Your task to perform on an android device: turn notification dots off Image 0: 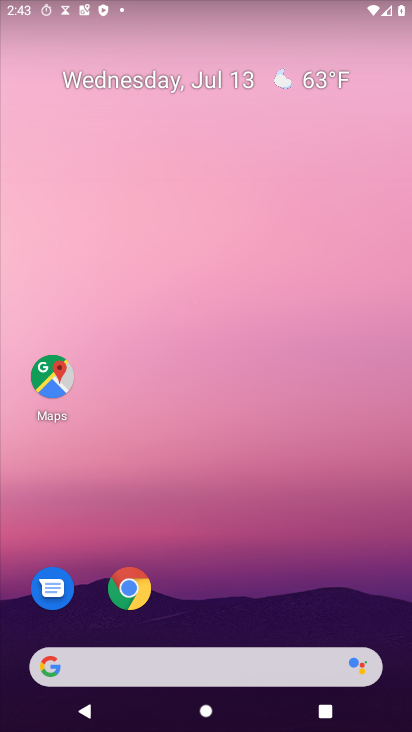
Step 0: drag from (229, 670) to (213, 298)
Your task to perform on an android device: turn notification dots off Image 1: 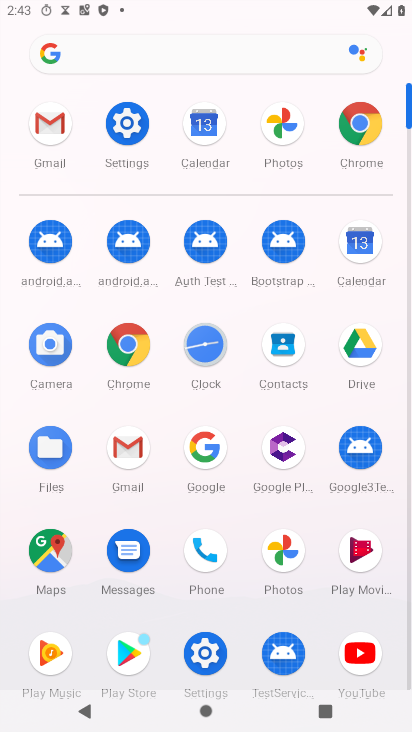
Step 1: click (127, 118)
Your task to perform on an android device: turn notification dots off Image 2: 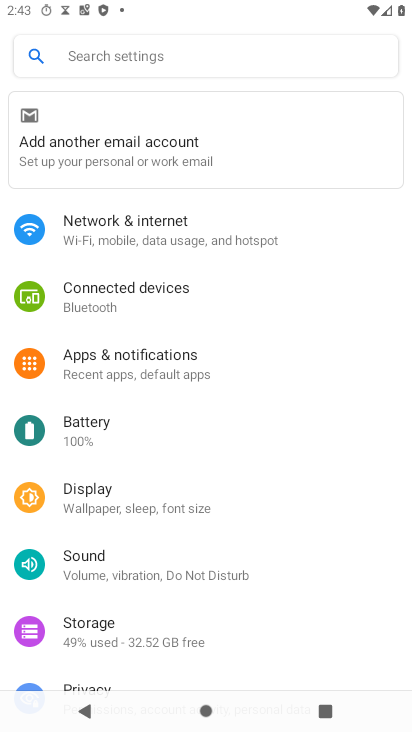
Step 2: click (142, 352)
Your task to perform on an android device: turn notification dots off Image 3: 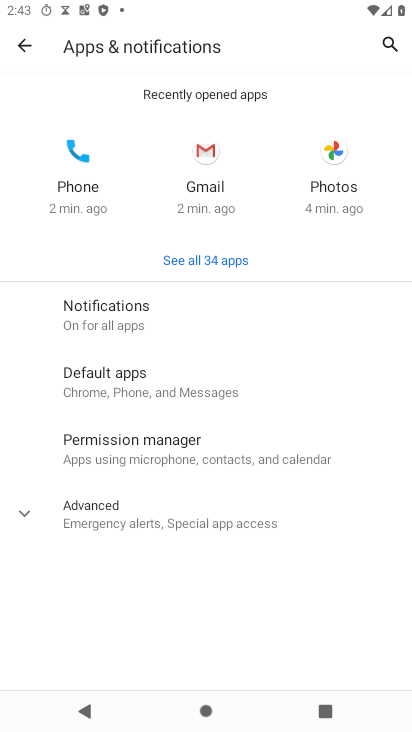
Step 3: click (126, 288)
Your task to perform on an android device: turn notification dots off Image 4: 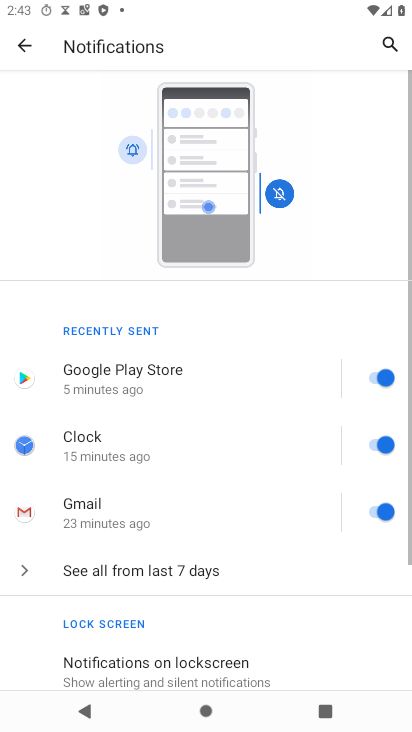
Step 4: drag from (274, 511) to (187, 240)
Your task to perform on an android device: turn notification dots off Image 5: 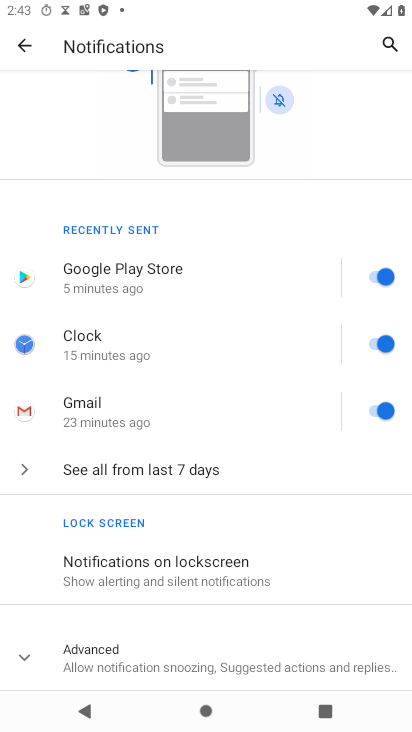
Step 5: click (201, 646)
Your task to perform on an android device: turn notification dots off Image 6: 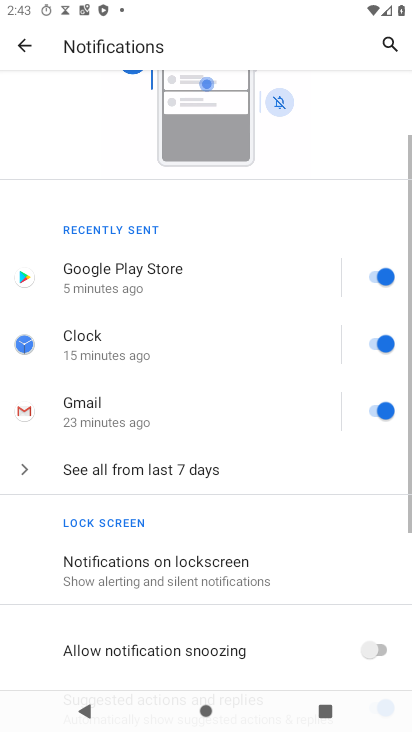
Step 6: drag from (216, 631) to (205, 436)
Your task to perform on an android device: turn notification dots off Image 7: 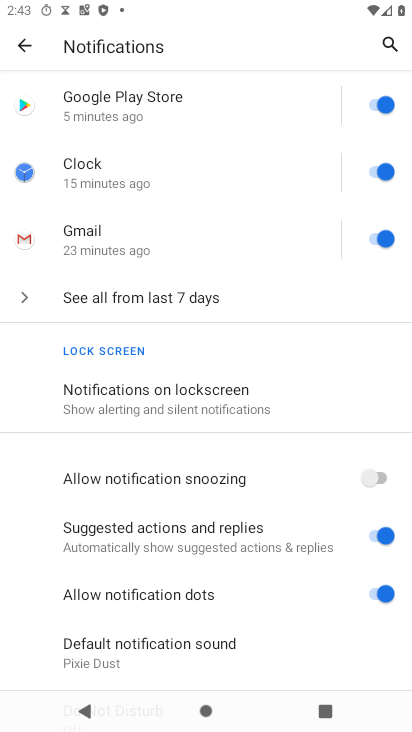
Step 7: click (384, 593)
Your task to perform on an android device: turn notification dots off Image 8: 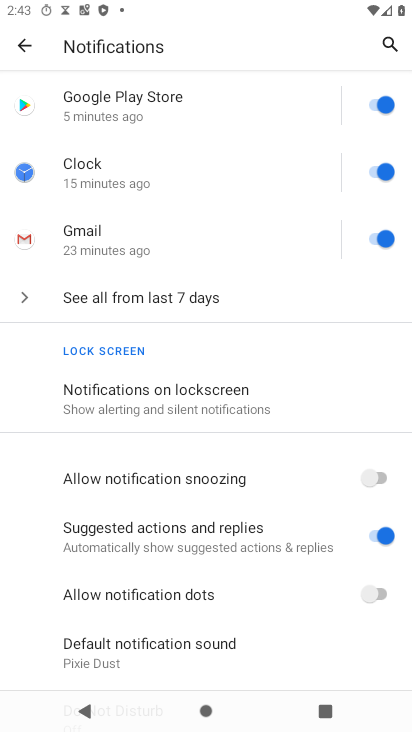
Step 8: task complete